Your task to perform on an android device: toggle data saver in the chrome app Image 0: 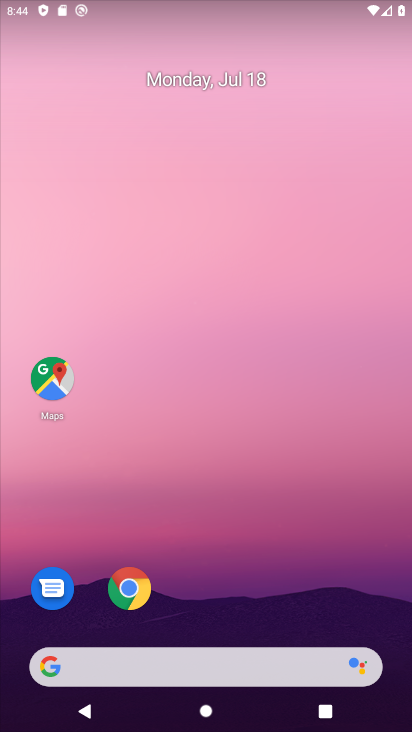
Step 0: click (131, 591)
Your task to perform on an android device: toggle data saver in the chrome app Image 1: 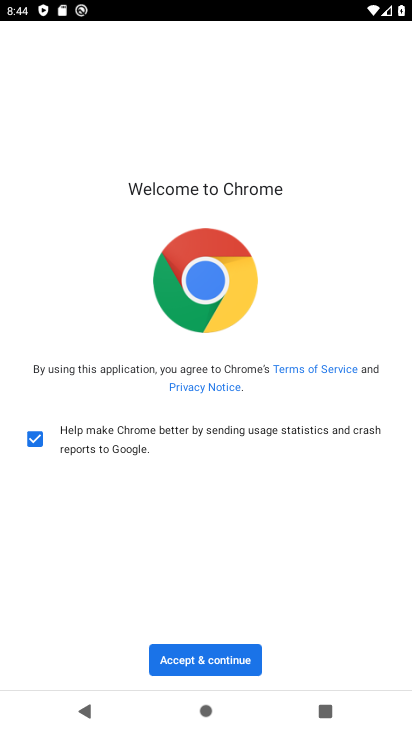
Step 1: click (237, 658)
Your task to perform on an android device: toggle data saver in the chrome app Image 2: 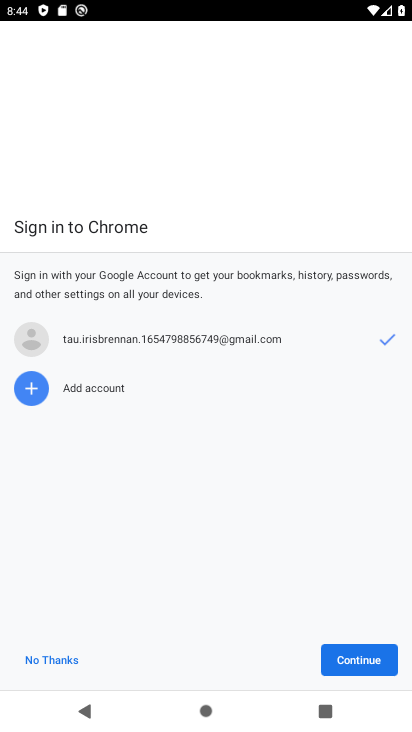
Step 2: click (342, 651)
Your task to perform on an android device: toggle data saver in the chrome app Image 3: 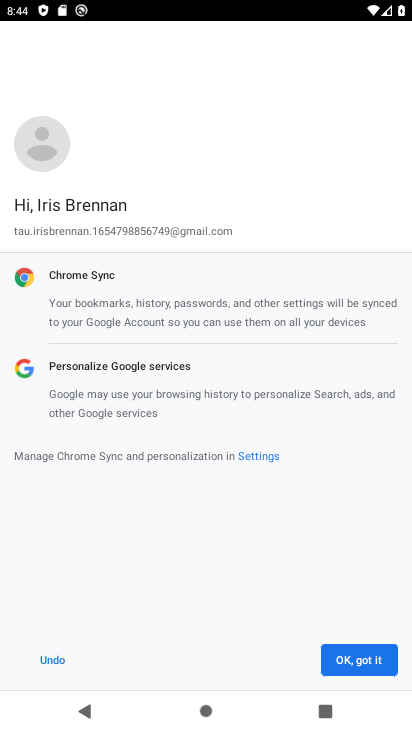
Step 3: click (353, 658)
Your task to perform on an android device: toggle data saver in the chrome app Image 4: 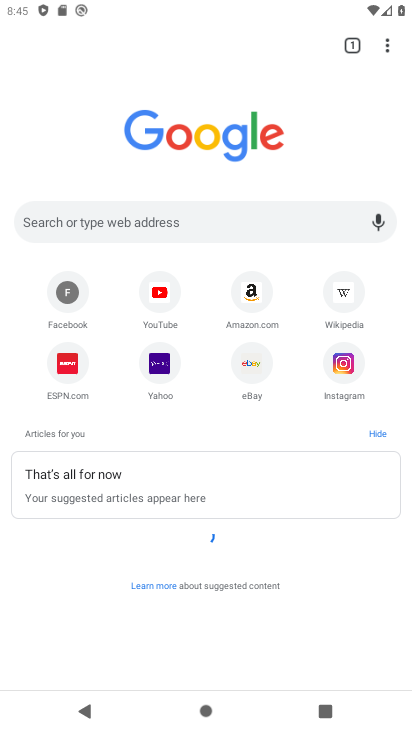
Step 4: click (380, 51)
Your task to perform on an android device: toggle data saver in the chrome app Image 5: 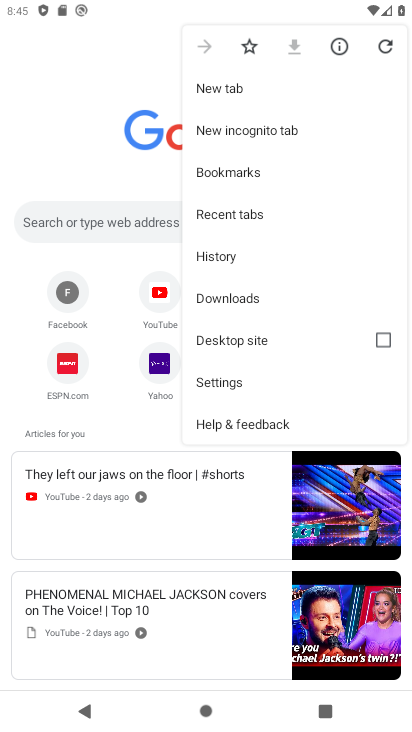
Step 5: click (247, 371)
Your task to perform on an android device: toggle data saver in the chrome app Image 6: 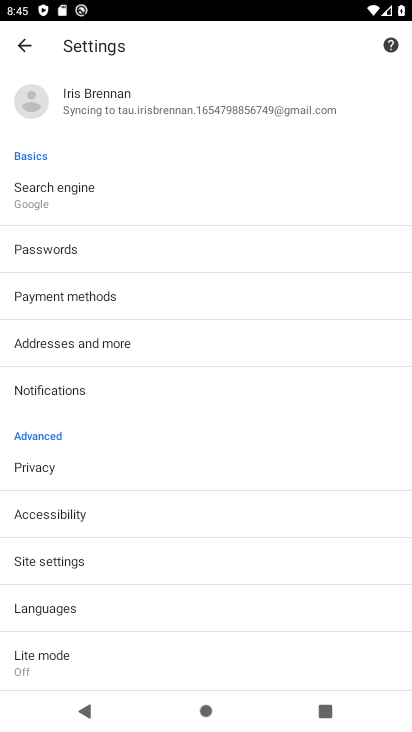
Step 6: click (84, 658)
Your task to perform on an android device: toggle data saver in the chrome app Image 7: 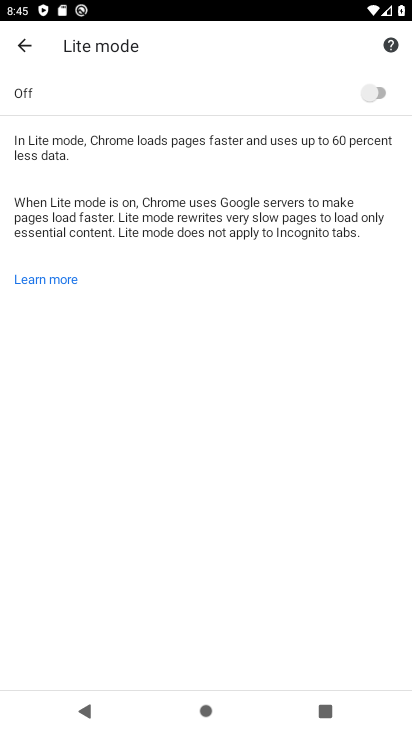
Step 7: click (368, 82)
Your task to perform on an android device: toggle data saver in the chrome app Image 8: 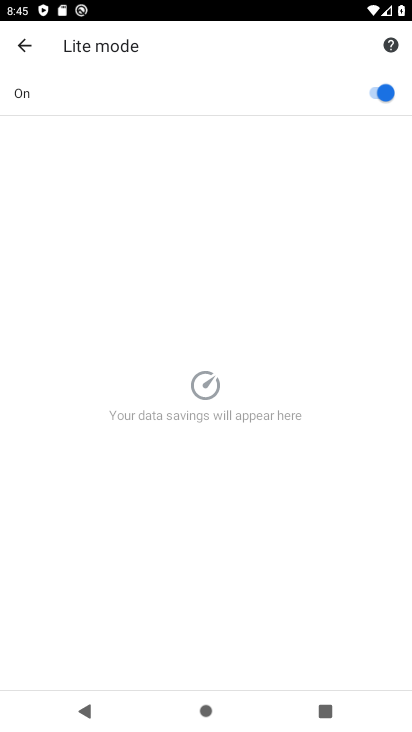
Step 8: task complete